Your task to perform on an android device: refresh tabs in the chrome app Image 0: 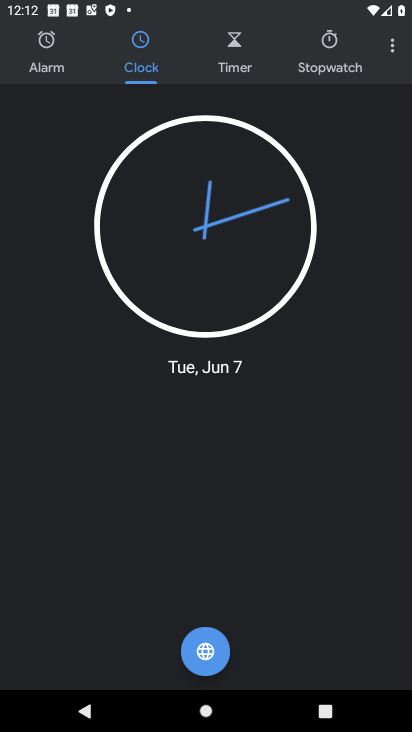
Step 0: drag from (349, 5) to (275, 724)
Your task to perform on an android device: refresh tabs in the chrome app Image 1: 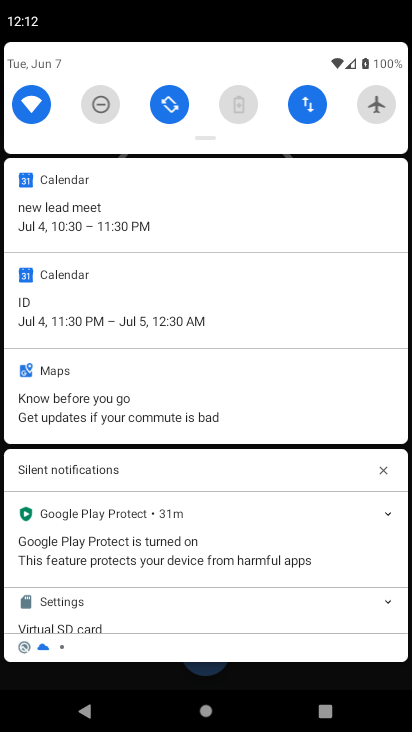
Step 1: press home button
Your task to perform on an android device: refresh tabs in the chrome app Image 2: 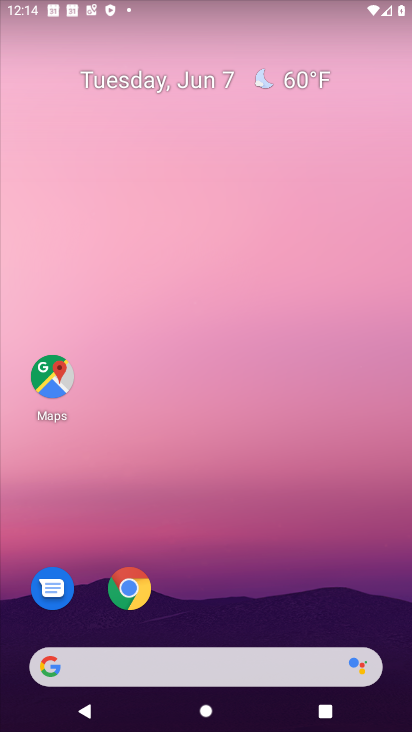
Step 2: click (140, 590)
Your task to perform on an android device: refresh tabs in the chrome app Image 3: 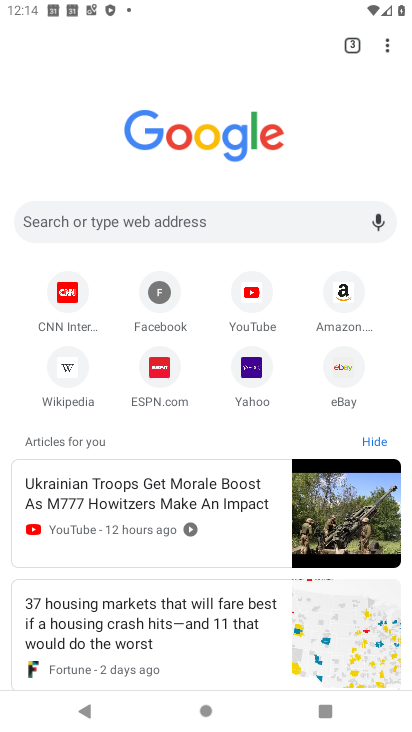
Step 3: click (390, 42)
Your task to perform on an android device: refresh tabs in the chrome app Image 4: 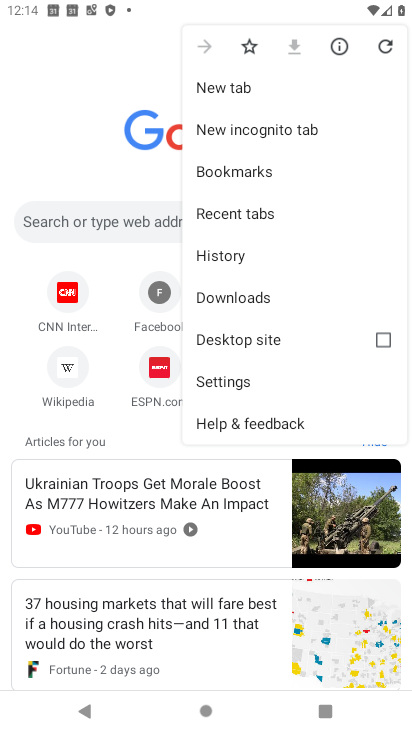
Step 4: click (387, 49)
Your task to perform on an android device: refresh tabs in the chrome app Image 5: 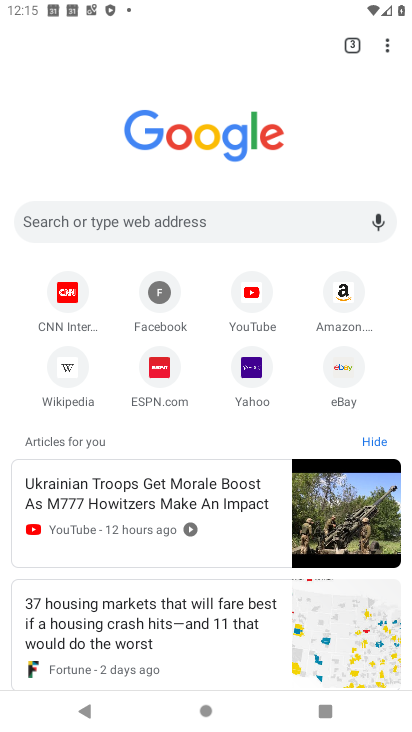
Step 5: task complete